Your task to perform on an android device: Open Google Chrome and open the bookmarks view Image 0: 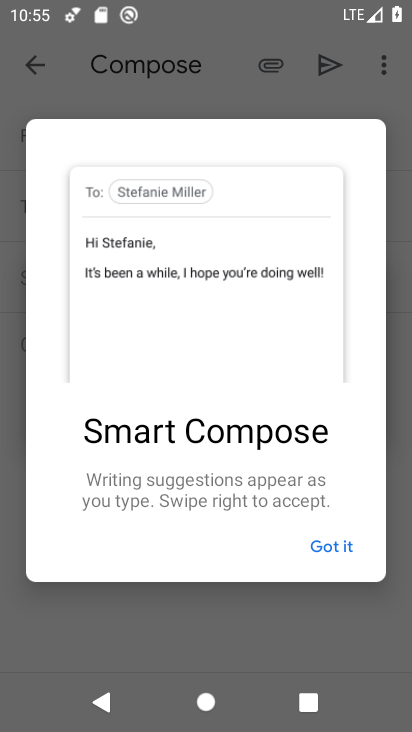
Step 0: press home button
Your task to perform on an android device: Open Google Chrome and open the bookmarks view Image 1: 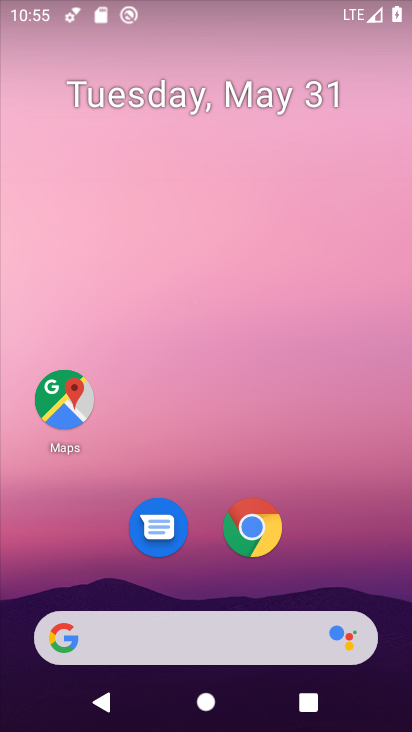
Step 1: click (257, 530)
Your task to perform on an android device: Open Google Chrome and open the bookmarks view Image 2: 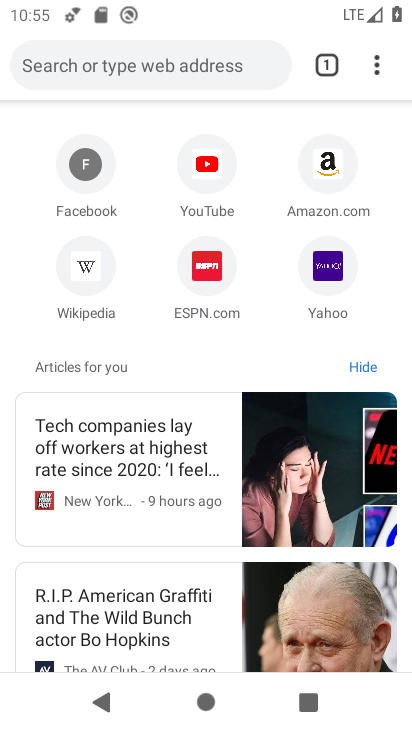
Step 2: click (376, 62)
Your task to perform on an android device: Open Google Chrome and open the bookmarks view Image 3: 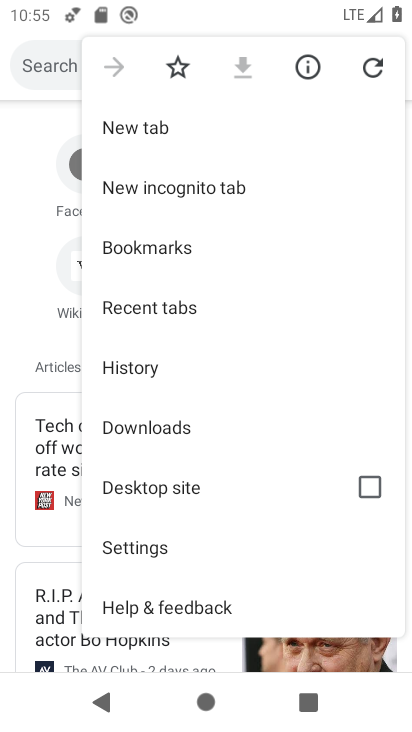
Step 3: click (138, 255)
Your task to perform on an android device: Open Google Chrome and open the bookmarks view Image 4: 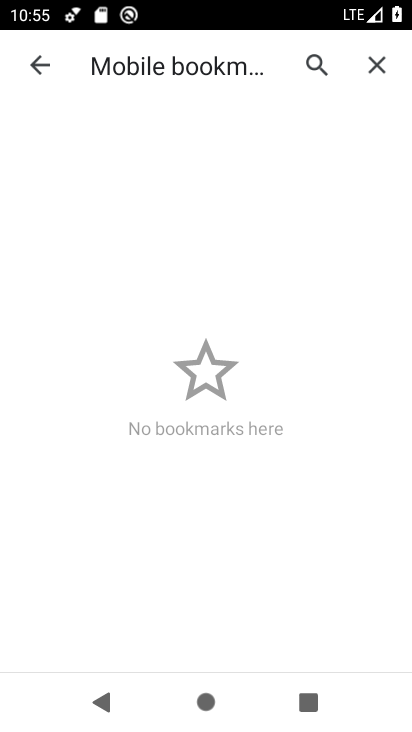
Step 4: task complete